Your task to perform on an android device: Show the shopping cart on newegg. Search for logitech g903 on newegg, select the first entry, add it to the cart, then select checkout. Image 0: 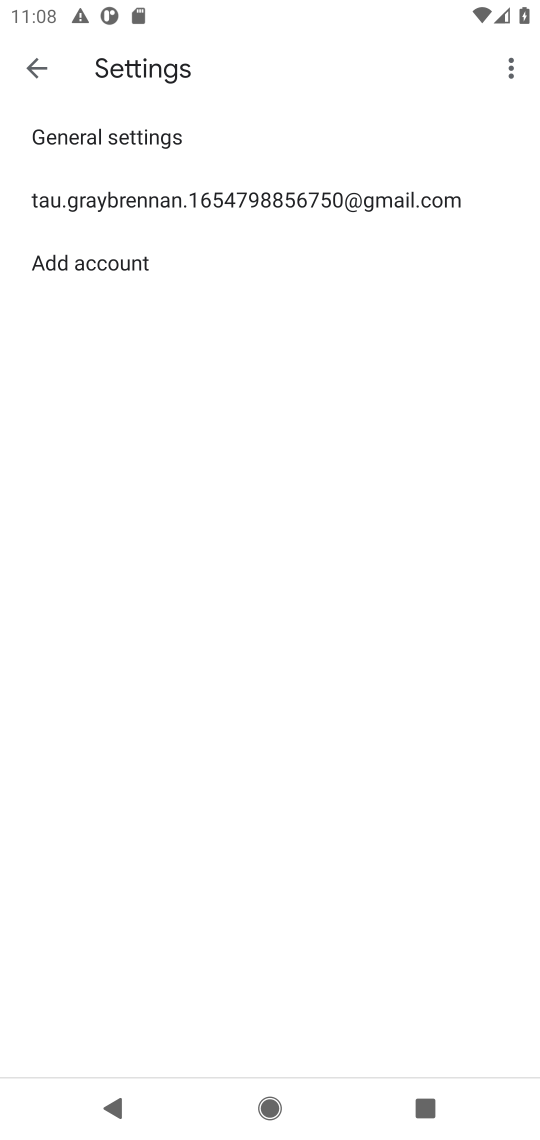
Step 0: press home button
Your task to perform on an android device: Show the shopping cart on newegg. Search for logitech g903 on newegg, select the first entry, add it to the cart, then select checkout. Image 1: 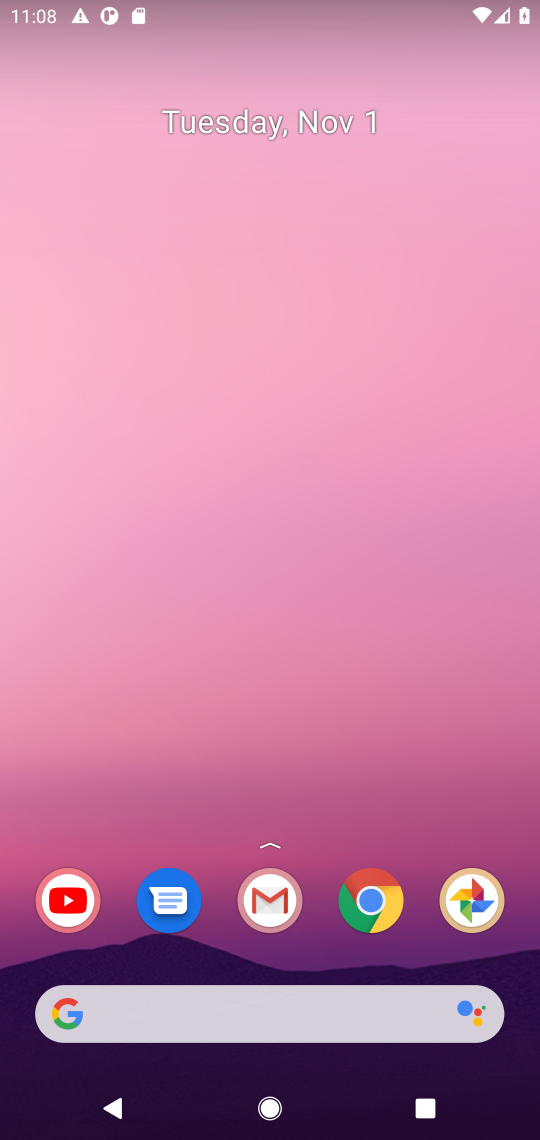
Step 1: click (368, 920)
Your task to perform on an android device: Show the shopping cart on newegg. Search for logitech g903 on newegg, select the first entry, add it to the cart, then select checkout. Image 2: 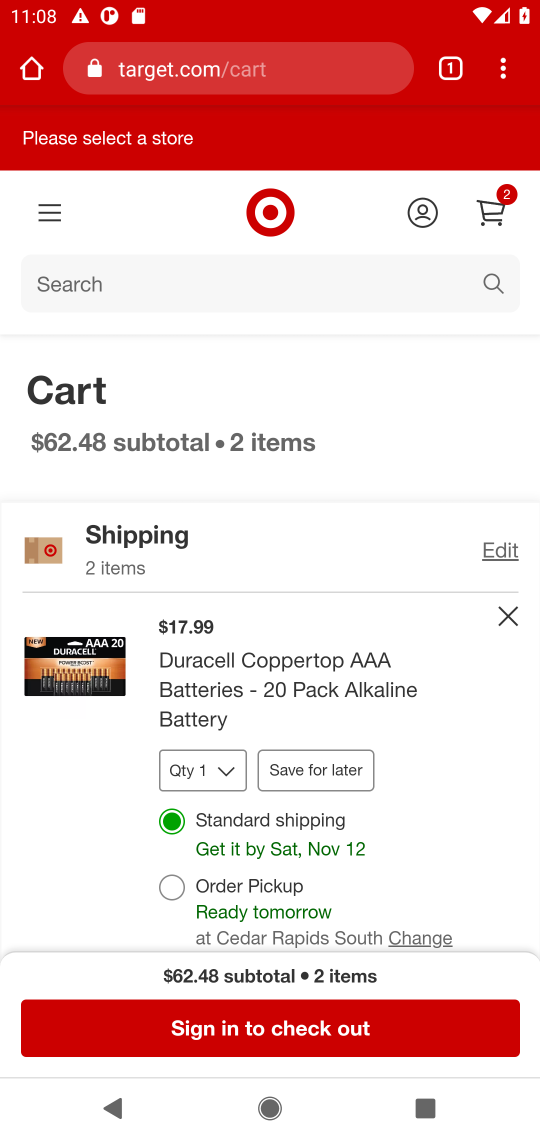
Step 2: click (151, 69)
Your task to perform on an android device: Show the shopping cart on newegg. Search for logitech g903 on newegg, select the first entry, add it to the cart, then select checkout. Image 3: 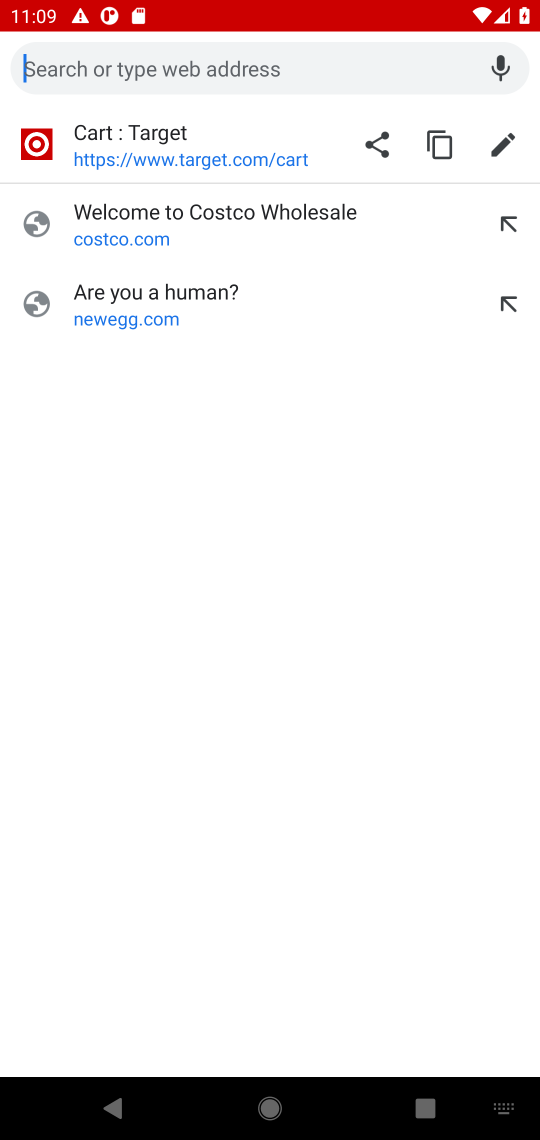
Step 3: click (143, 298)
Your task to perform on an android device: Show the shopping cart on newegg. Search for logitech g903 on newegg, select the first entry, add it to the cart, then select checkout. Image 4: 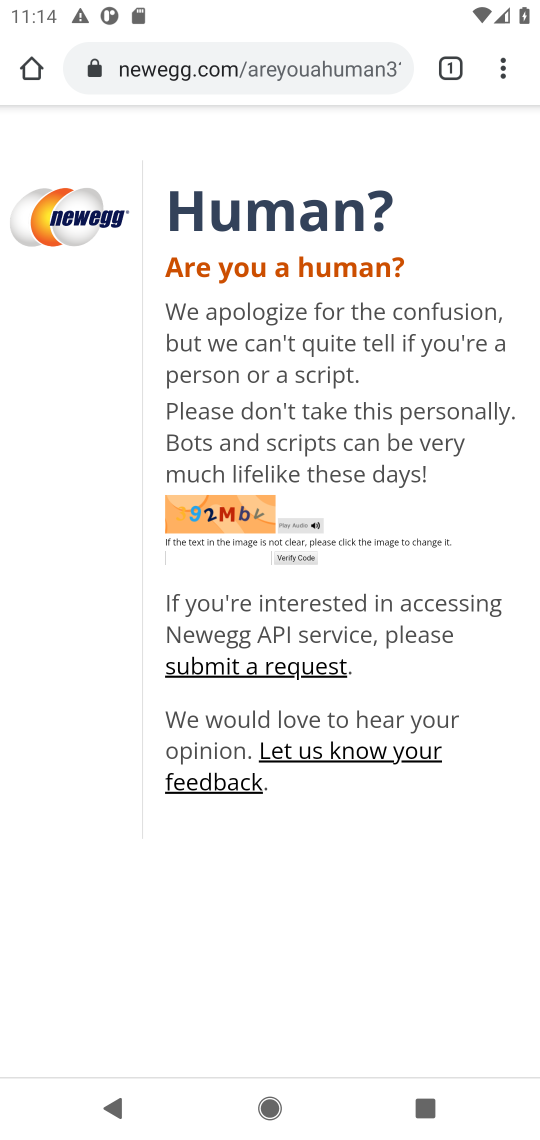
Step 4: task complete